Your task to perform on an android device: What's on my calendar today? Image 0: 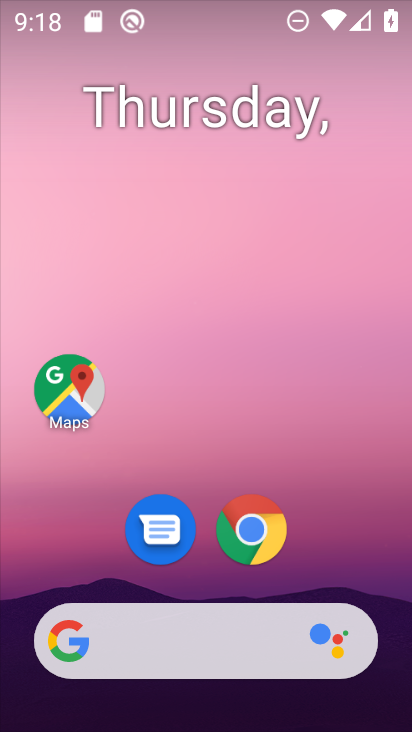
Step 0: drag from (228, 723) to (212, 600)
Your task to perform on an android device: What's on my calendar today? Image 1: 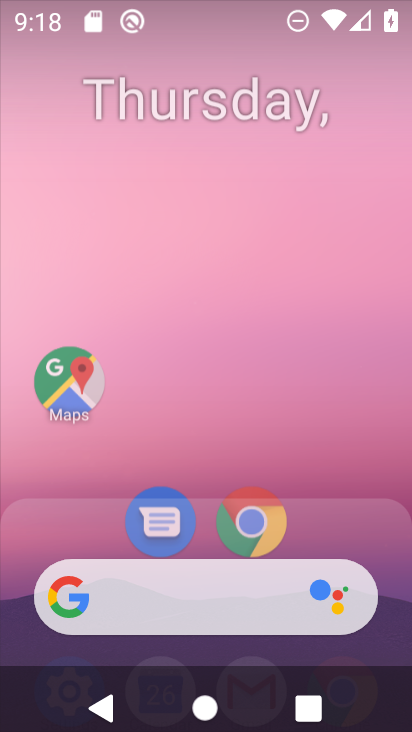
Step 1: drag from (214, 299) to (220, 190)
Your task to perform on an android device: What's on my calendar today? Image 2: 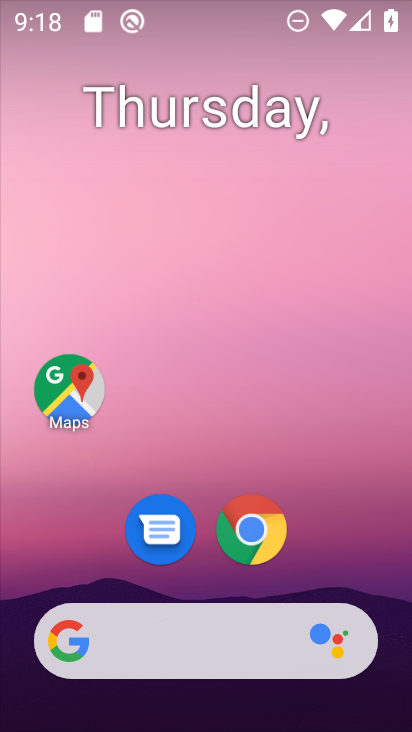
Step 2: drag from (211, 723) to (203, 47)
Your task to perform on an android device: What's on my calendar today? Image 3: 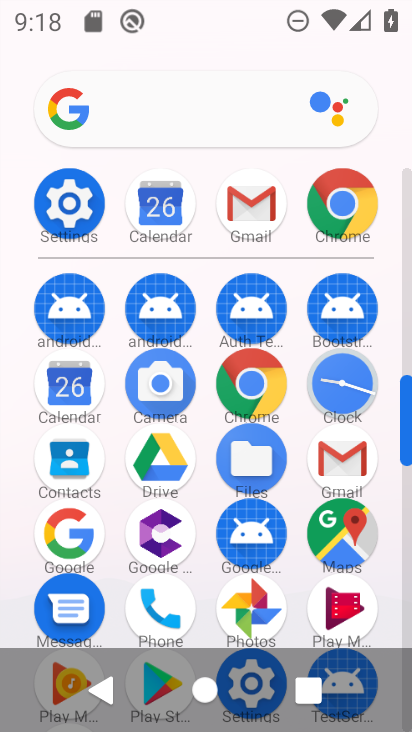
Step 3: click (71, 392)
Your task to perform on an android device: What's on my calendar today? Image 4: 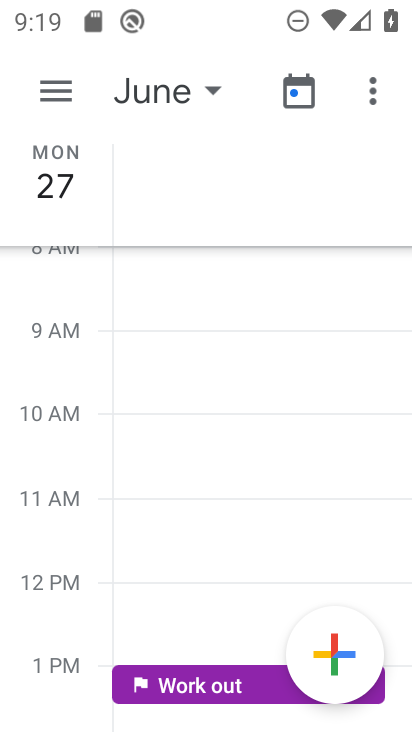
Step 4: click (176, 89)
Your task to perform on an android device: What's on my calendar today? Image 5: 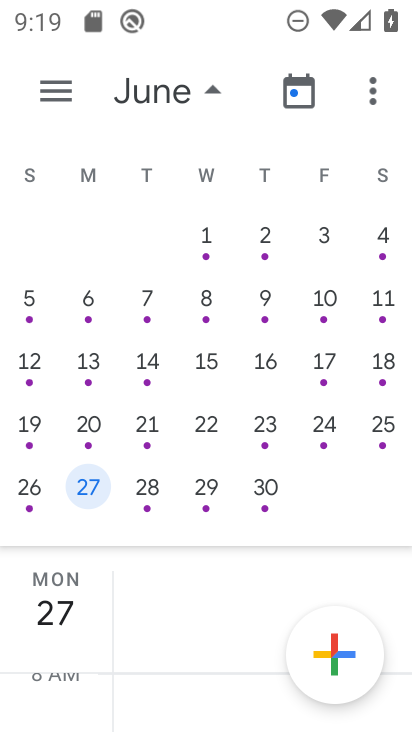
Step 5: click (85, 486)
Your task to perform on an android device: What's on my calendar today? Image 6: 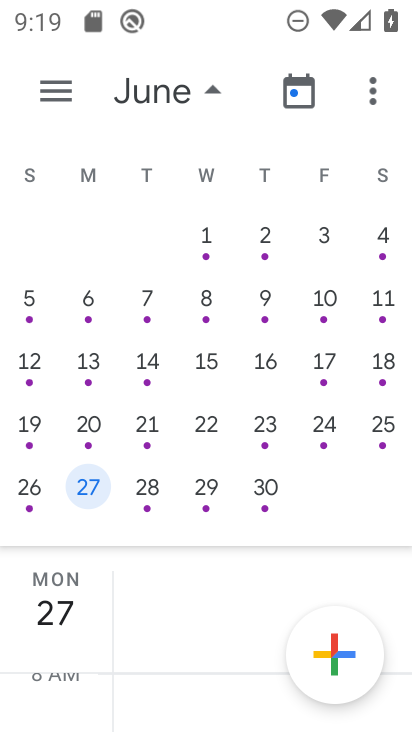
Step 6: click (210, 92)
Your task to perform on an android device: What's on my calendar today? Image 7: 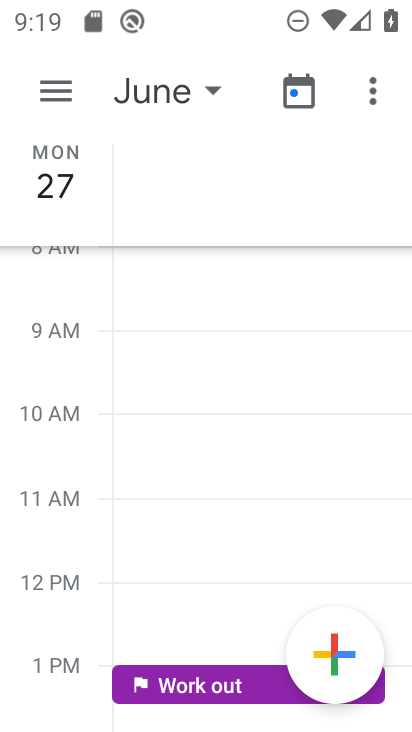
Step 7: click (57, 96)
Your task to perform on an android device: What's on my calendar today? Image 8: 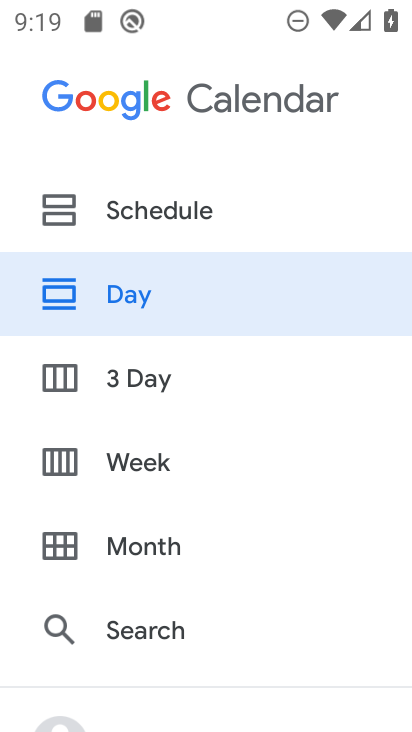
Step 8: click (143, 213)
Your task to perform on an android device: What's on my calendar today? Image 9: 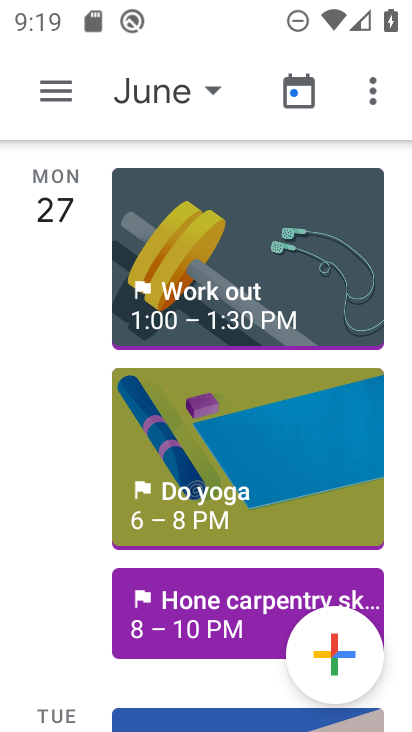
Step 9: task complete